Your task to perform on an android device: Show me popular videos on Youtube Image 0: 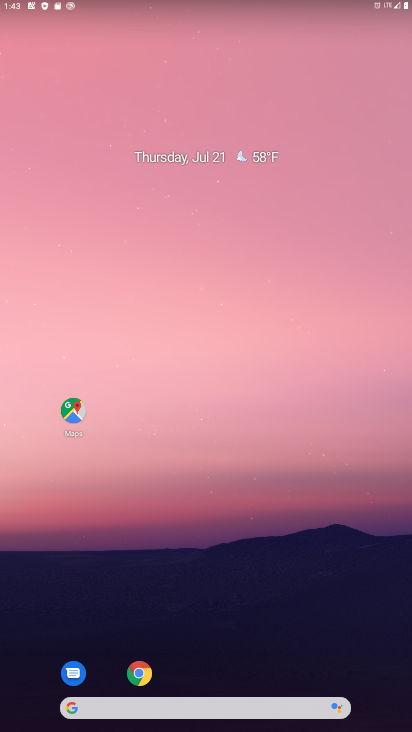
Step 0: drag from (191, 641) to (204, 324)
Your task to perform on an android device: Show me popular videos on Youtube Image 1: 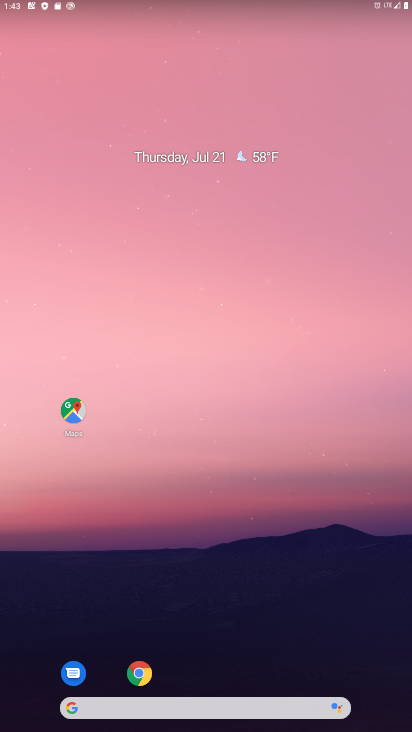
Step 1: drag from (208, 675) to (212, 359)
Your task to perform on an android device: Show me popular videos on Youtube Image 2: 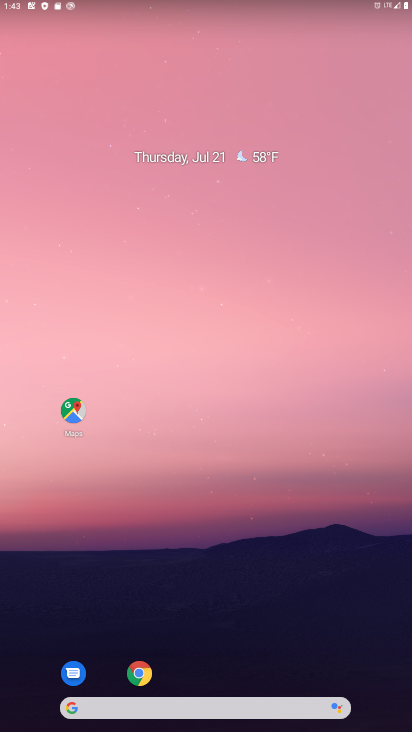
Step 2: drag from (202, 667) to (226, 275)
Your task to perform on an android device: Show me popular videos on Youtube Image 3: 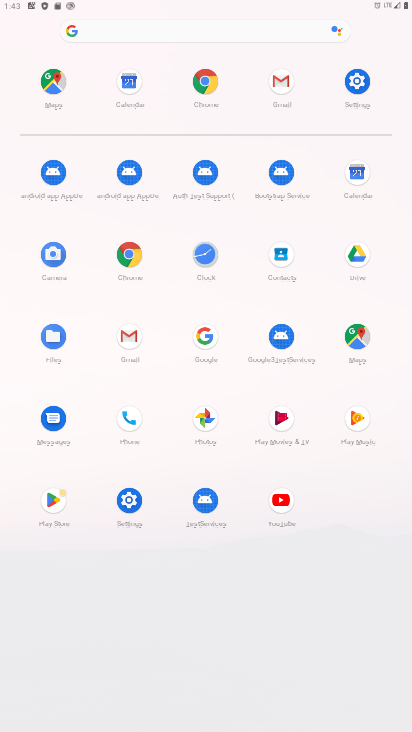
Step 3: click (283, 489)
Your task to perform on an android device: Show me popular videos on Youtube Image 4: 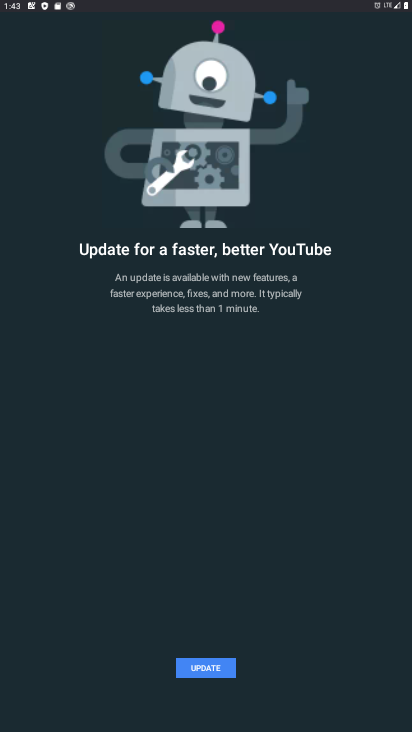
Step 4: task complete